Your task to perform on an android device: turn on the 24-hour format for clock Image 0: 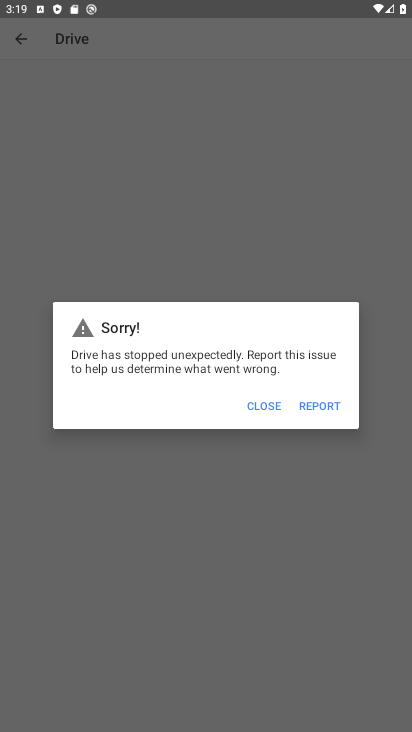
Step 0: press home button
Your task to perform on an android device: turn on the 24-hour format for clock Image 1: 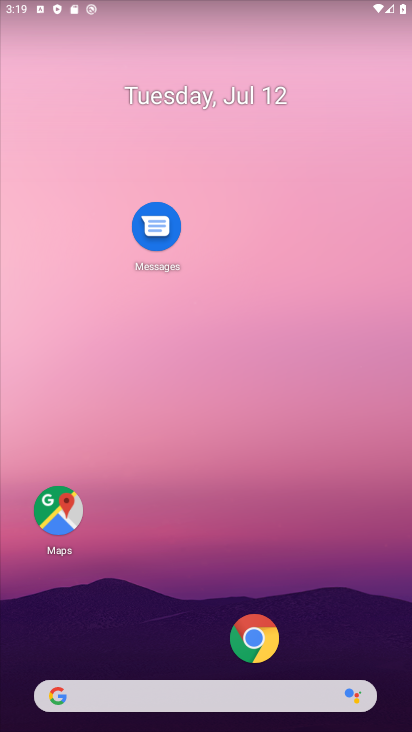
Step 1: drag from (141, 671) to (169, 46)
Your task to perform on an android device: turn on the 24-hour format for clock Image 2: 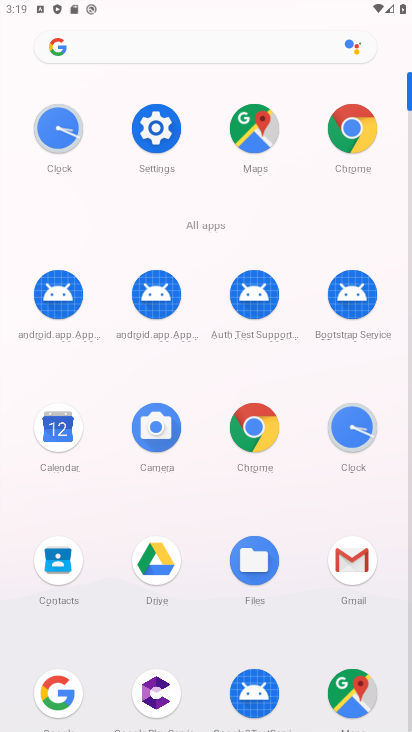
Step 2: click (41, 111)
Your task to perform on an android device: turn on the 24-hour format for clock Image 3: 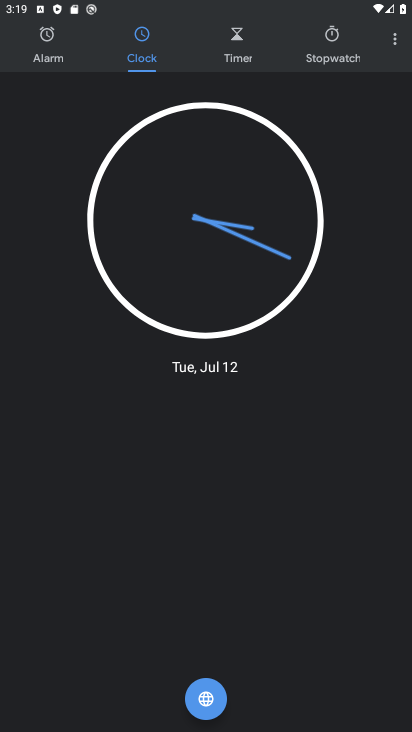
Step 3: click (403, 32)
Your task to perform on an android device: turn on the 24-hour format for clock Image 4: 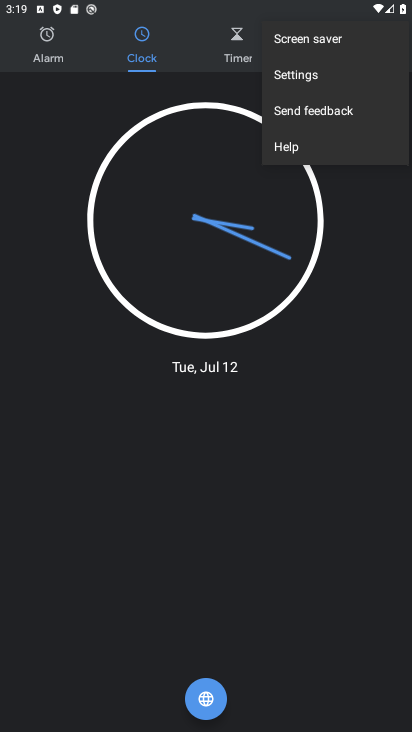
Step 4: click (355, 64)
Your task to perform on an android device: turn on the 24-hour format for clock Image 5: 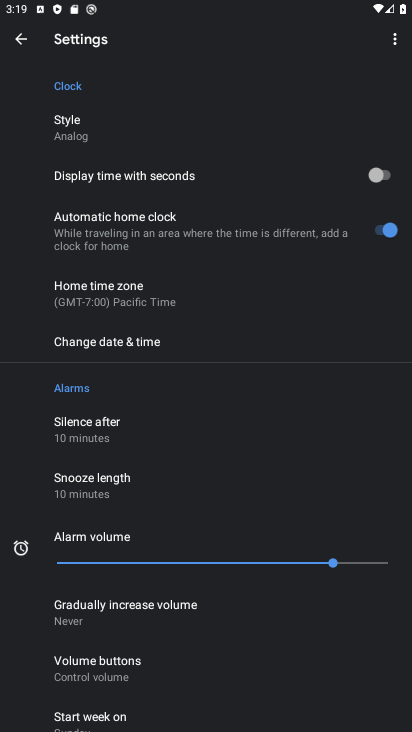
Step 5: click (169, 327)
Your task to perform on an android device: turn on the 24-hour format for clock Image 6: 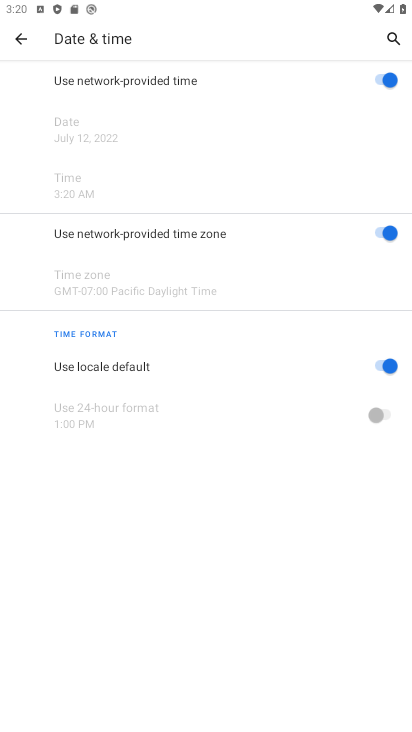
Step 6: click (387, 366)
Your task to perform on an android device: turn on the 24-hour format for clock Image 7: 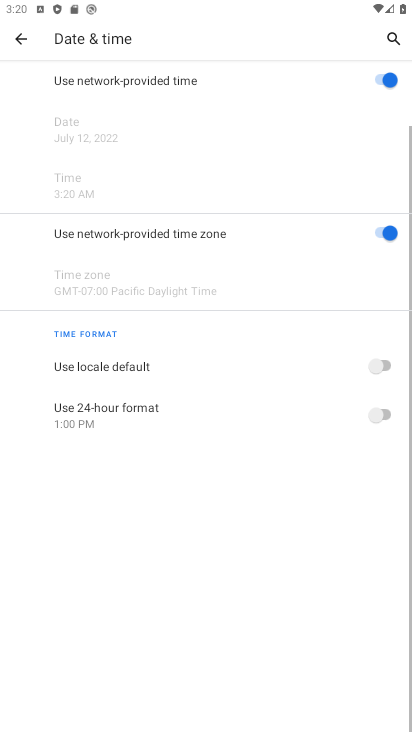
Step 7: click (387, 413)
Your task to perform on an android device: turn on the 24-hour format for clock Image 8: 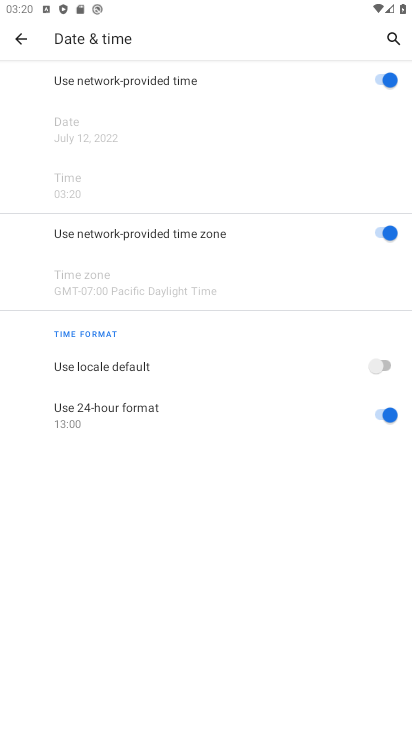
Step 8: task complete